Your task to perform on an android device: stop showing notifications on the lock screen Image 0: 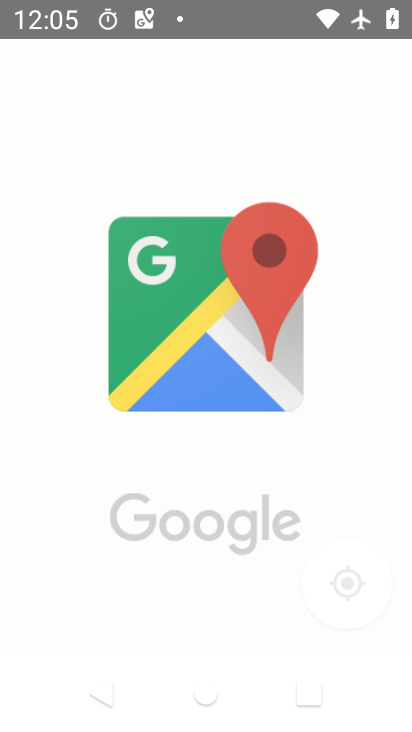
Step 0: drag from (151, 572) to (167, 129)
Your task to perform on an android device: stop showing notifications on the lock screen Image 1: 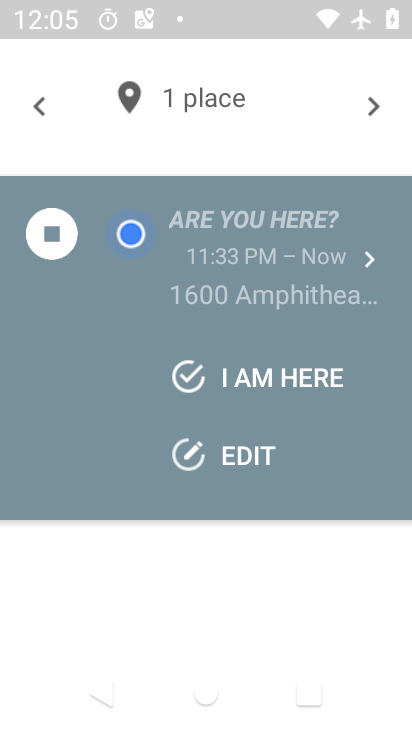
Step 1: press home button
Your task to perform on an android device: stop showing notifications on the lock screen Image 2: 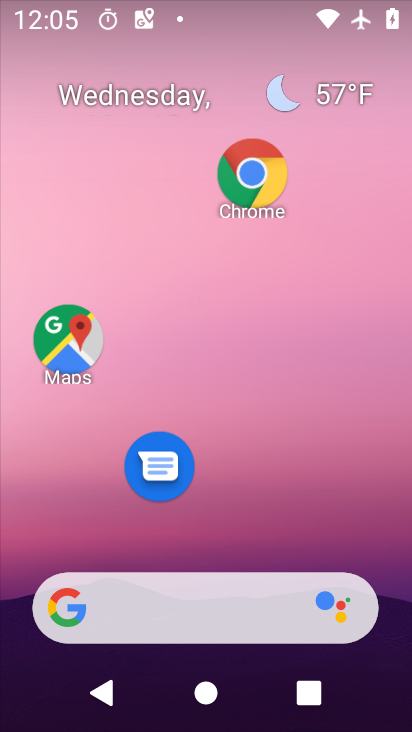
Step 2: drag from (158, 551) to (164, 120)
Your task to perform on an android device: stop showing notifications on the lock screen Image 3: 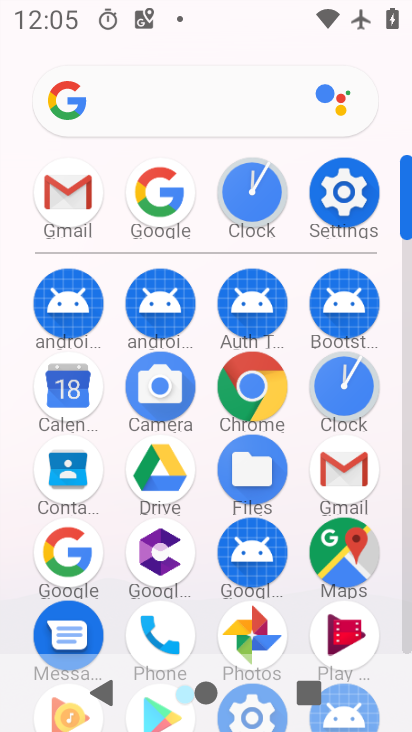
Step 3: click (340, 197)
Your task to perform on an android device: stop showing notifications on the lock screen Image 4: 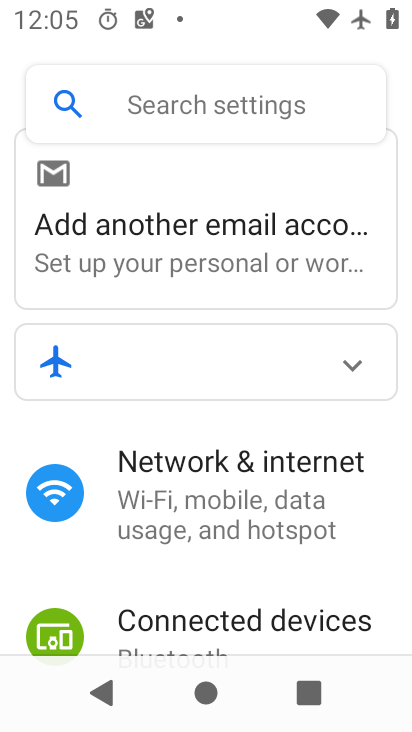
Step 4: drag from (166, 625) to (193, 188)
Your task to perform on an android device: stop showing notifications on the lock screen Image 5: 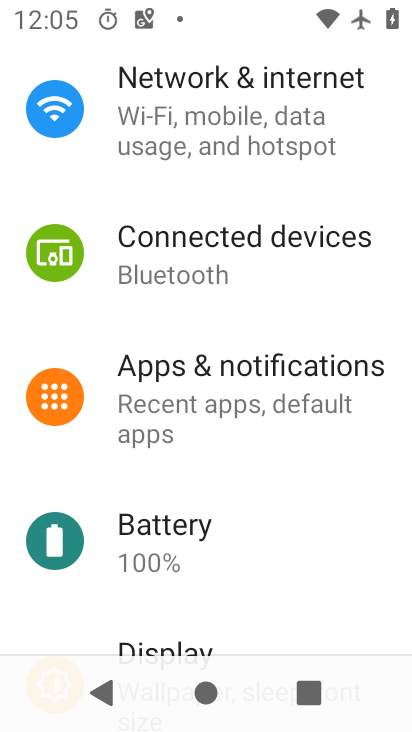
Step 5: drag from (194, 569) to (204, 144)
Your task to perform on an android device: stop showing notifications on the lock screen Image 6: 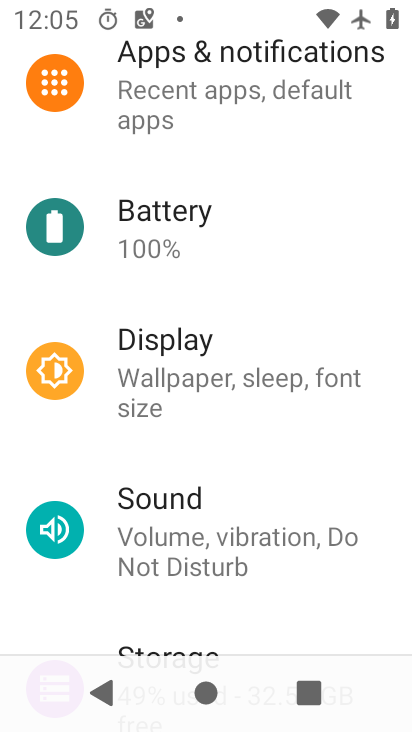
Step 6: drag from (171, 579) to (172, 233)
Your task to perform on an android device: stop showing notifications on the lock screen Image 7: 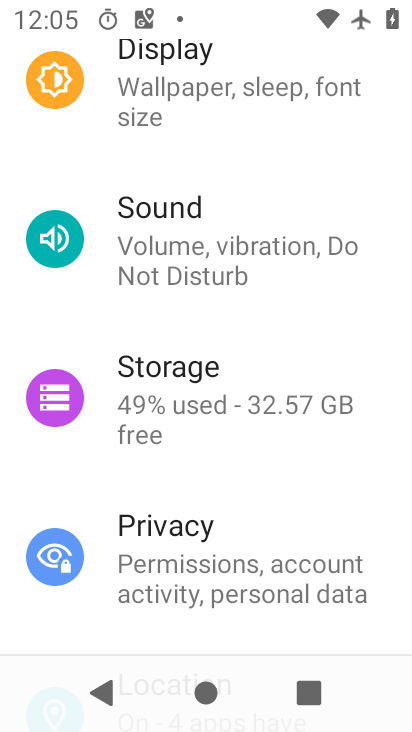
Step 7: click (178, 549)
Your task to perform on an android device: stop showing notifications on the lock screen Image 8: 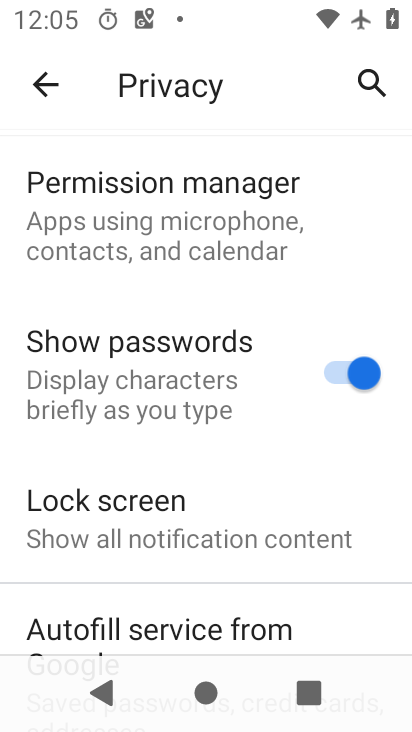
Step 8: click (101, 528)
Your task to perform on an android device: stop showing notifications on the lock screen Image 9: 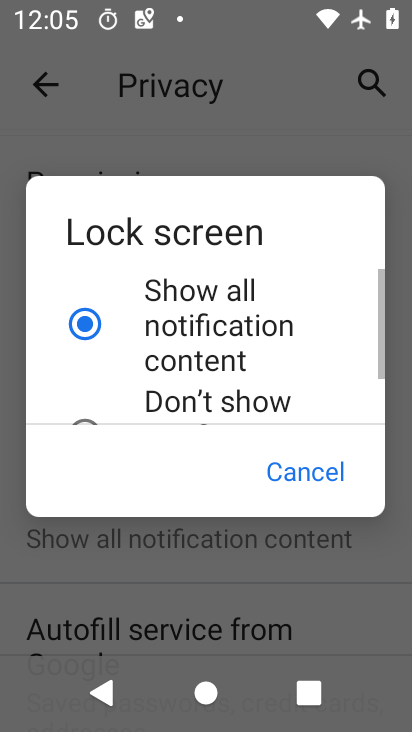
Step 9: click (79, 399)
Your task to perform on an android device: stop showing notifications on the lock screen Image 10: 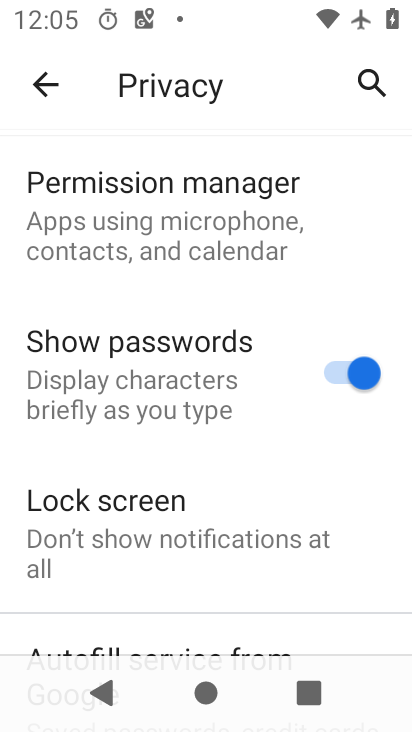
Step 10: task complete